Your task to perform on an android device: toggle improve location accuracy Image 0: 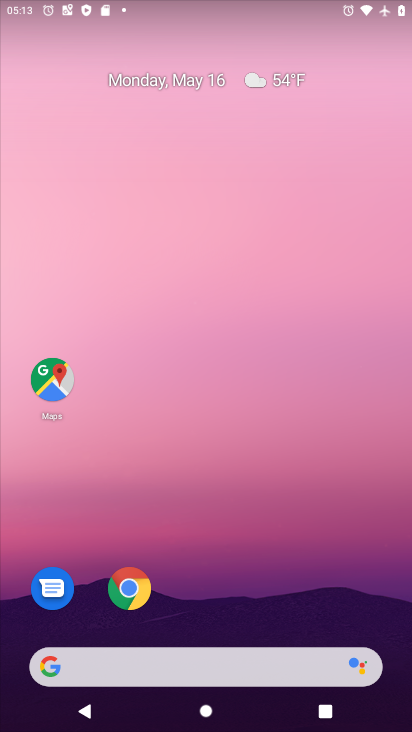
Step 0: drag from (262, 561) to (301, 7)
Your task to perform on an android device: toggle improve location accuracy Image 1: 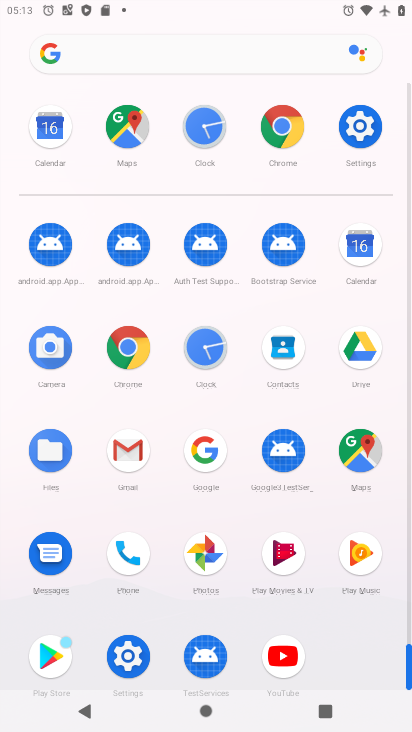
Step 1: drag from (12, 537) to (32, 254)
Your task to perform on an android device: toggle improve location accuracy Image 2: 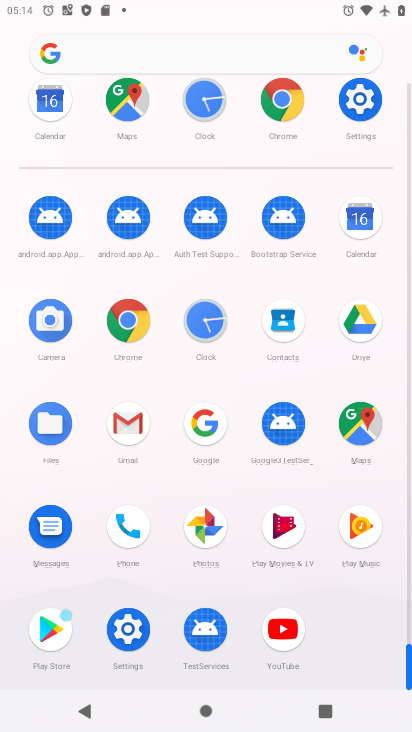
Step 2: click (128, 627)
Your task to perform on an android device: toggle improve location accuracy Image 3: 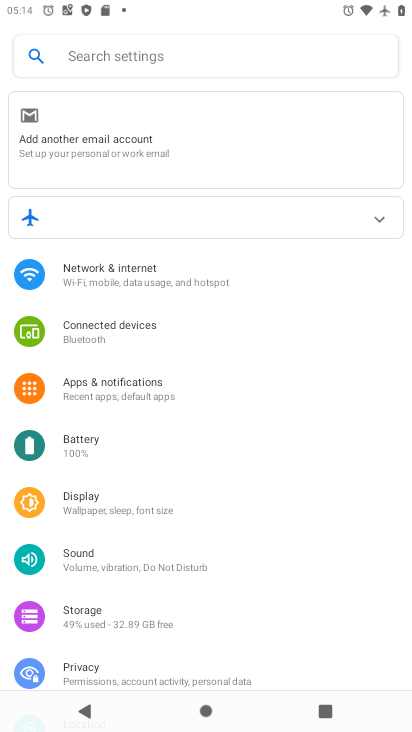
Step 3: drag from (178, 589) to (240, 235)
Your task to perform on an android device: toggle improve location accuracy Image 4: 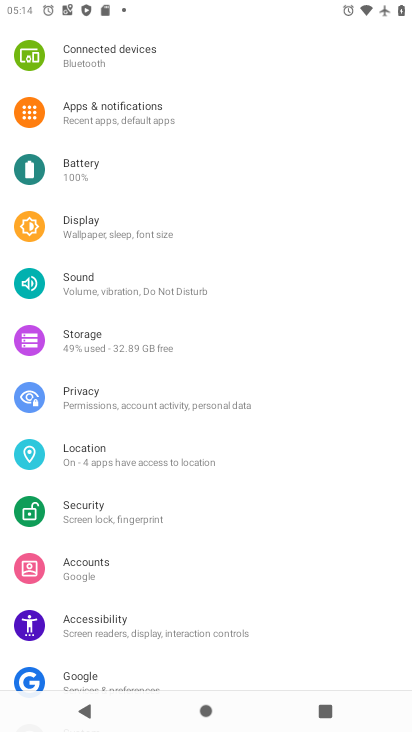
Step 4: click (110, 460)
Your task to perform on an android device: toggle improve location accuracy Image 5: 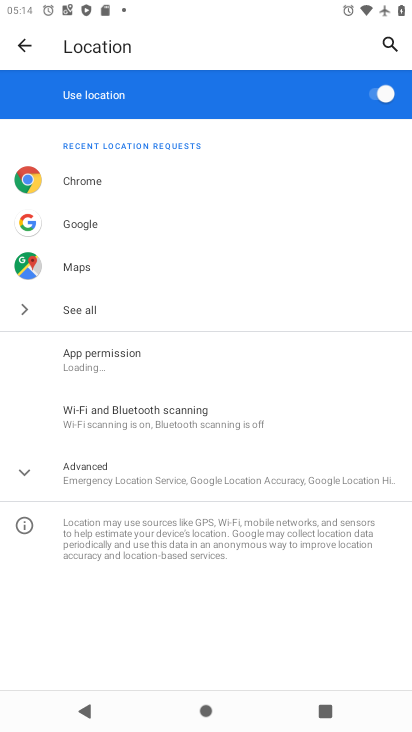
Step 5: click (44, 475)
Your task to perform on an android device: toggle improve location accuracy Image 6: 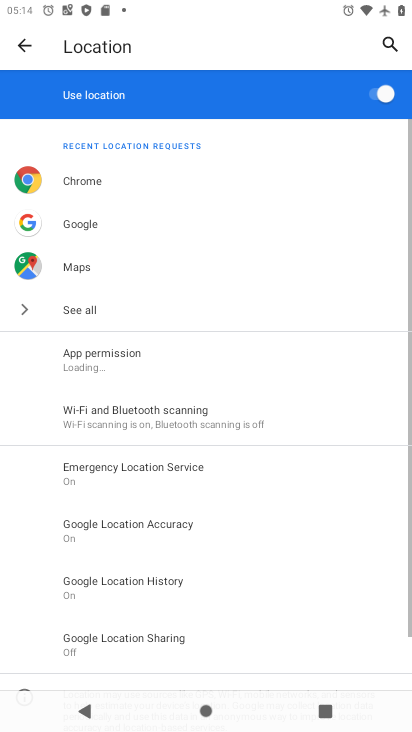
Step 6: drag from (230, 537) to (239, 192)
Your task to perform on an android device: toggle improve location accuracy Image 7: 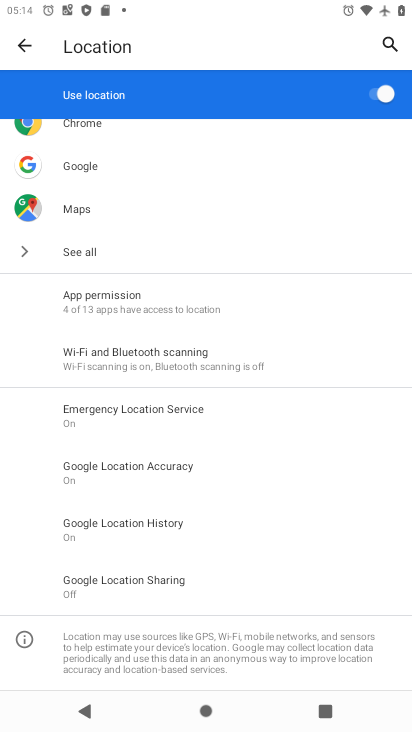
Step 7: click (175, 475)
Your task to perform on an android device: toggle improve location accuracy Image 8: 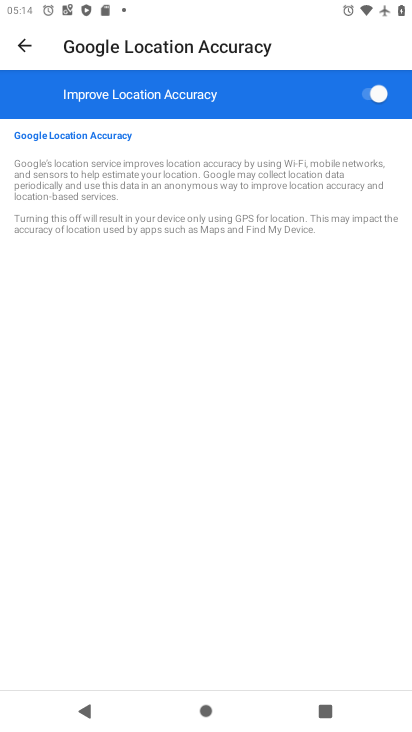
Step 8: click (358, 92)
Your task to perform on an android device: toggle improve location accuracy Image 9: 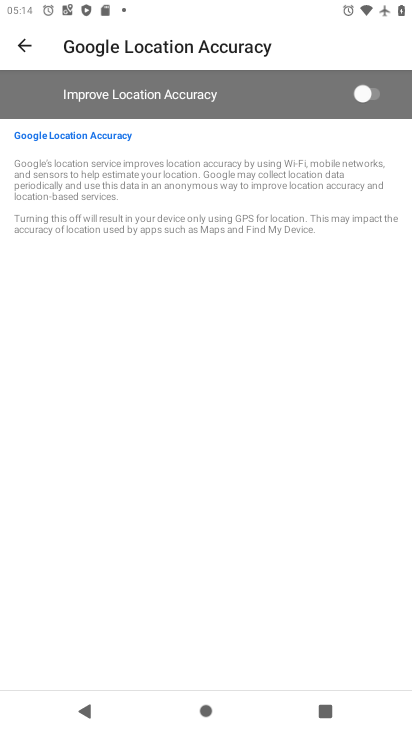
Step 9: task complete